Your task to perform on an android device: Open location settings Image 0: 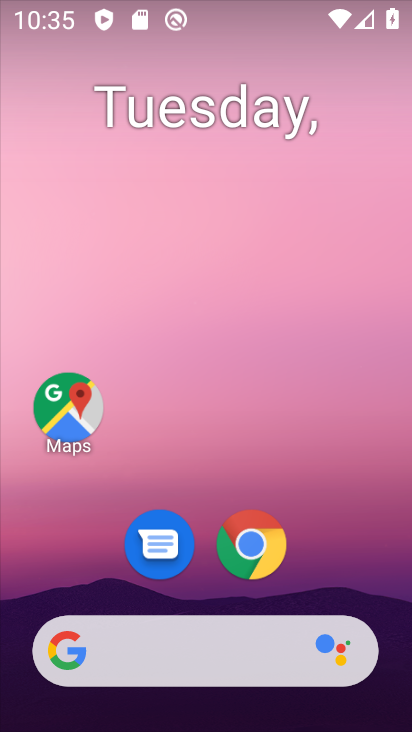
Step 0: drag from (359, 416) to (307, 85)
Your task to perform on an android device: Open location settings Image 1: 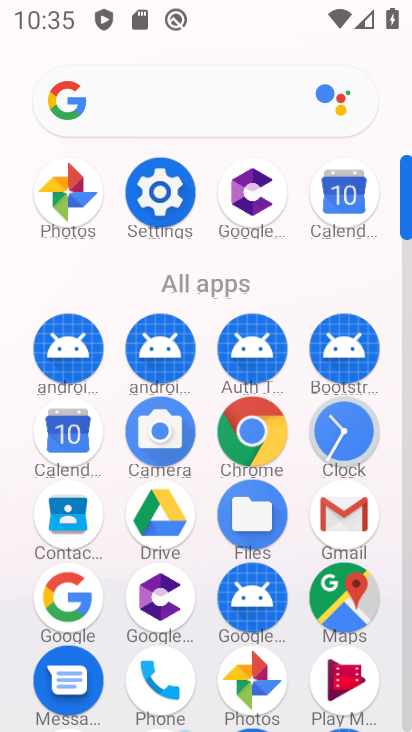
Step 1: click (159, 216)
Your task to perform on an android device: Open location settings Image 2: 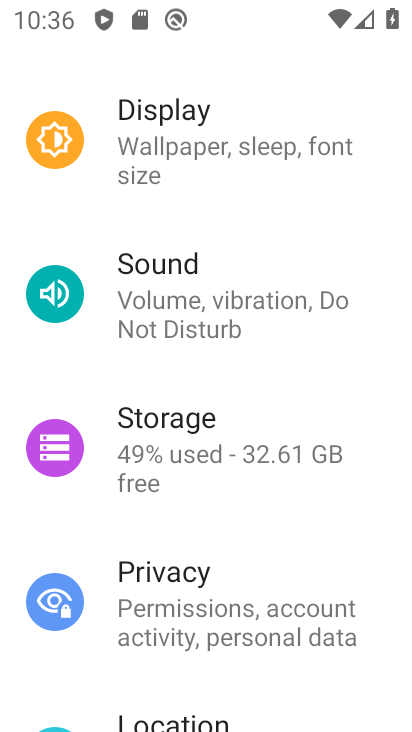
Step 2: drag from (178, 689) to (212, 315)
Your task to perform on an android device: Open location settings Image 3: 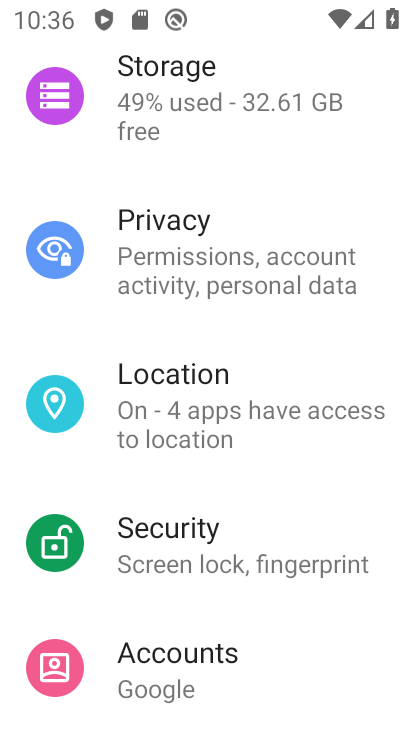
Step 3: click (191, 400)
Your task to perform on an android device: Open location settings Image 4: 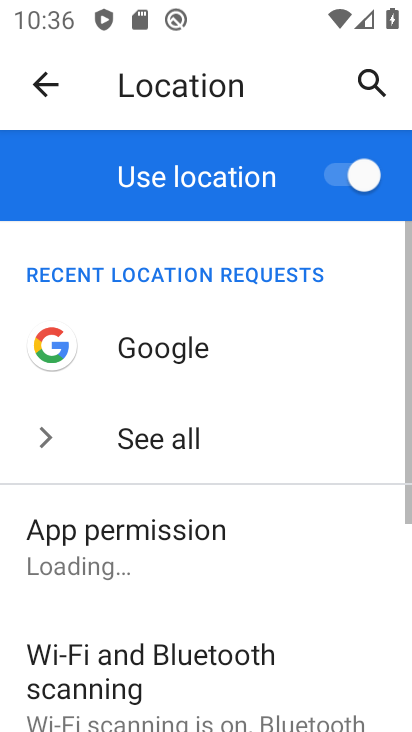
Step 4: task complete